Your task to perform on an android device: turn off notifications settings in the gmail app Image 0: 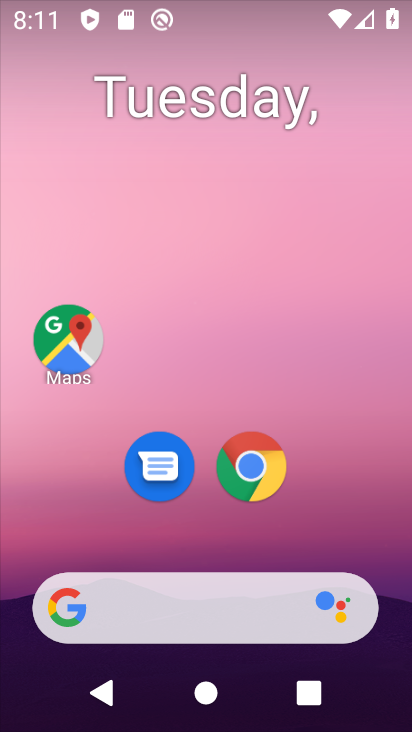
Step 0: drag from (210, 535) to (277, 135)
Your task to perform on an android device: turn off notifications settings in the gmail app Image 1: 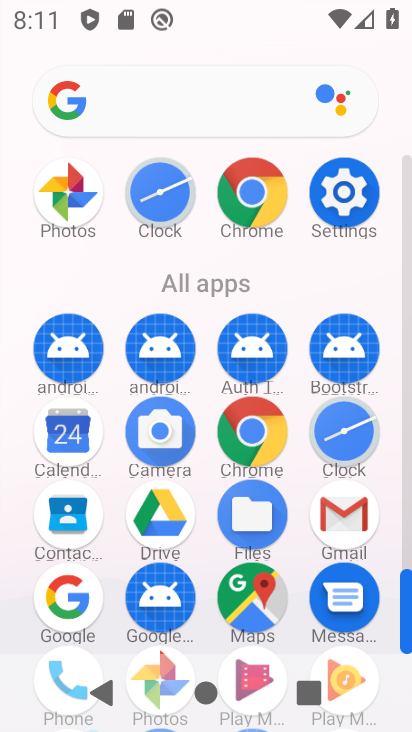
Step 1: click (346, 531)
Your task to perform on an android device: turn off notifications settings in the gmail app Image 2: 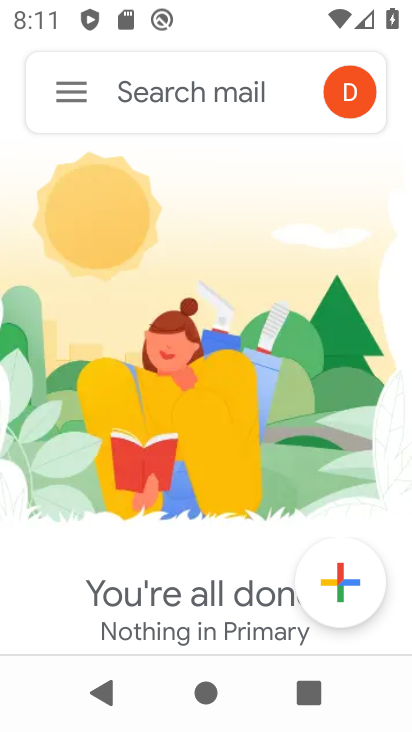
Step 2: click (57, 95)
Your task to perform on an android device: turn off notifications settings in the gmail app Image 3: 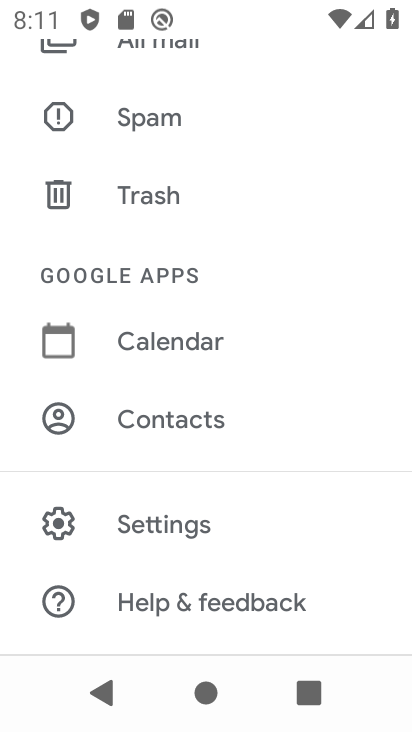
Step 3: click (137, 534)
Your task to perform on an android device: turn off notifications settings in the gmail app Image 4: 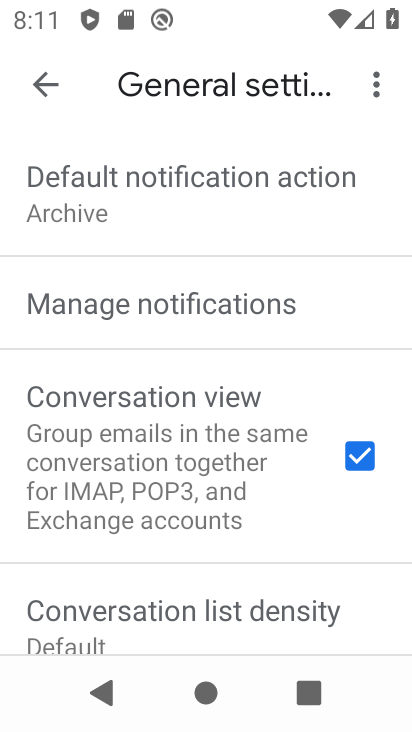
Step 4: click (108, 321)
Your task to perform on an android device: turn off notifications settings in the gmail app Image 5: 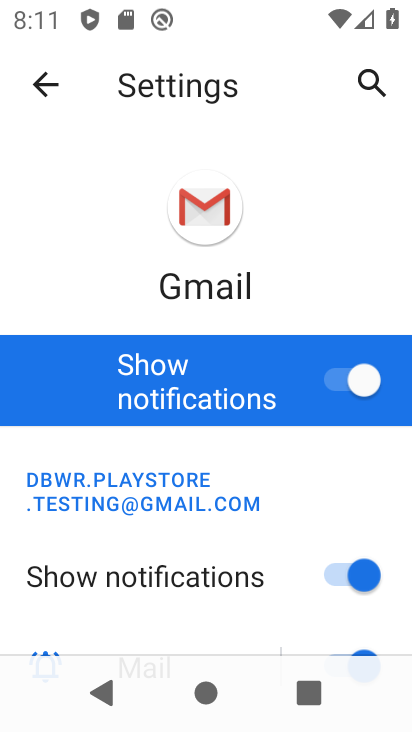
Step 5: click (333, 386)
Your task to perform on an android device: turn off notifications settings in the gmail app Image 6: 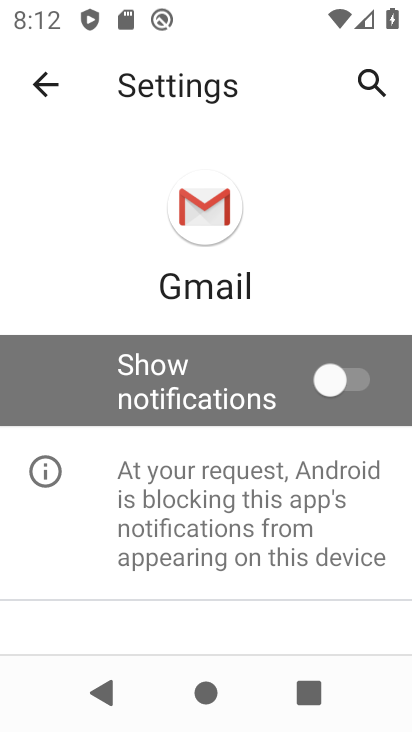
Step 6: task complete